Your task to perform on an android device: Open Wikipedia Image 0: 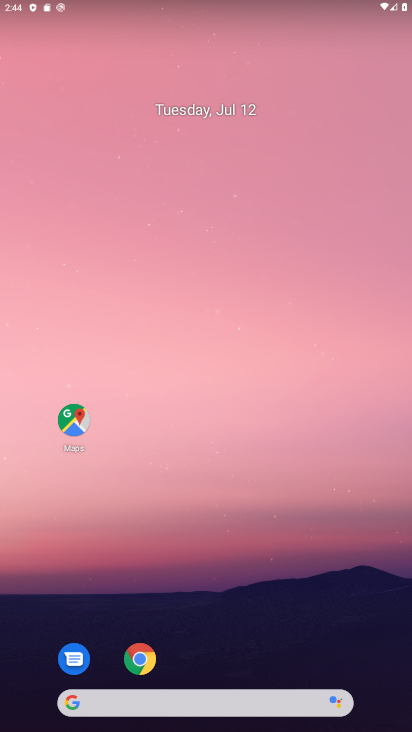
Step 0: click (221, 130)
Your task to perform on an android device: Open Wikipedia Image 1: 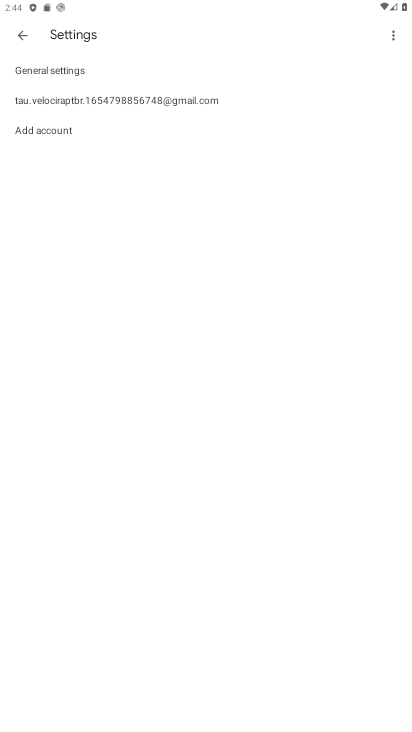
Step 1: click (13, 30)
Your task to perform on an android device: Open Wikipedia Image 2: 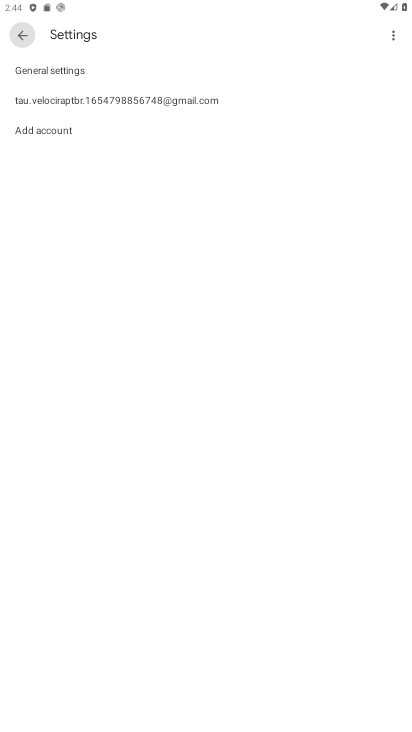
Step 2: click (13, 30)
Your task to perform on an android device: Open Wikipedia Image 3: 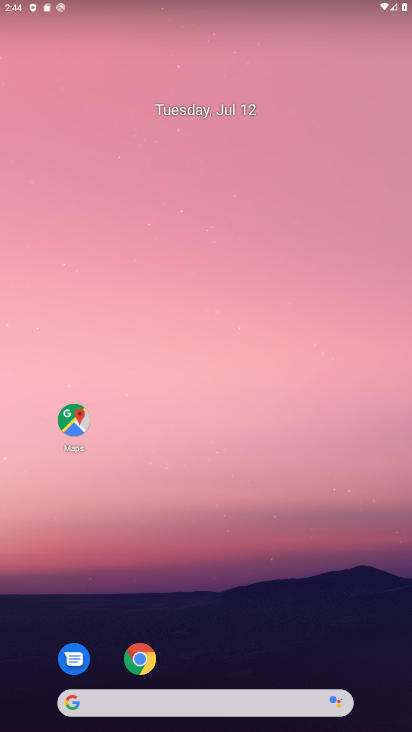
Step 3: drag from (292, 711) to (119, 115)
Your task to perform on an android device: Open Wikipedia Image 4: 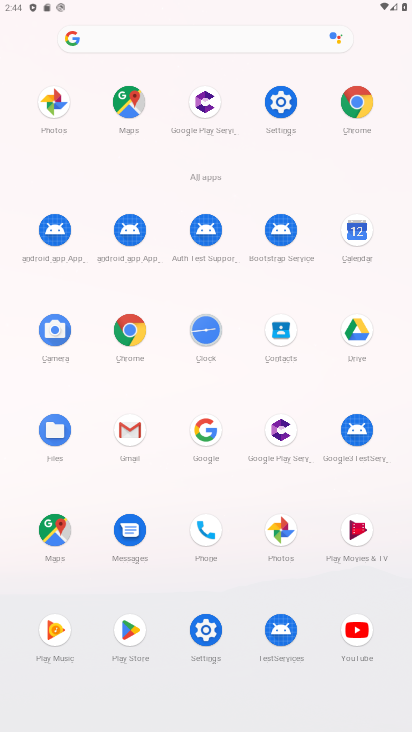
Step 4: click (348, 95)
Your task to perform on an android device: Open Wikipedia Image 5: 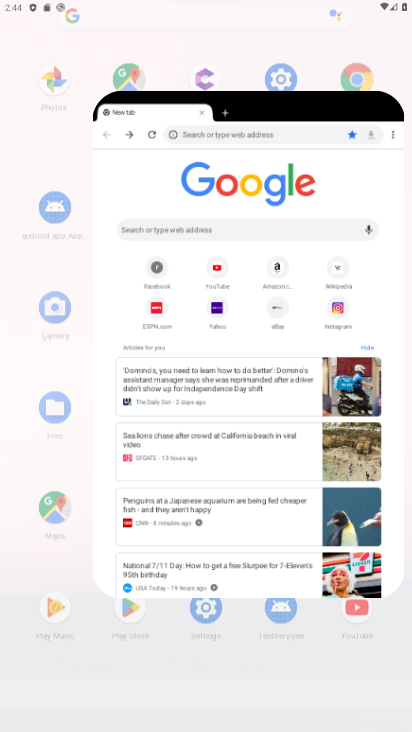
Step 5: click (348, 95)
Your task to perform on an android device: Open Wikipedia Image 6: 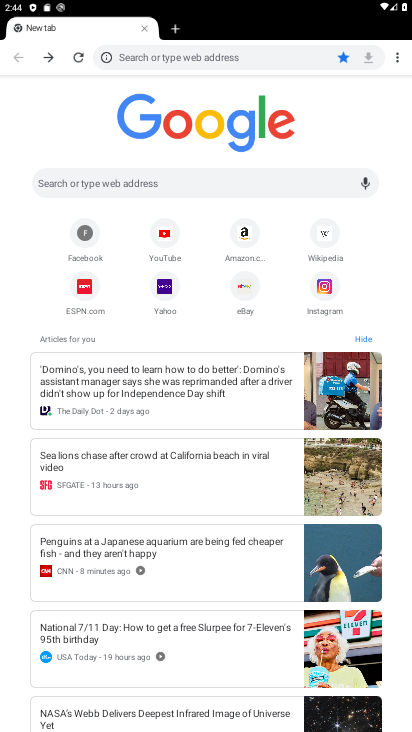
Step 6: click (394, 55)
Your task to perform on an android device: Open Wikipedia Image 7: 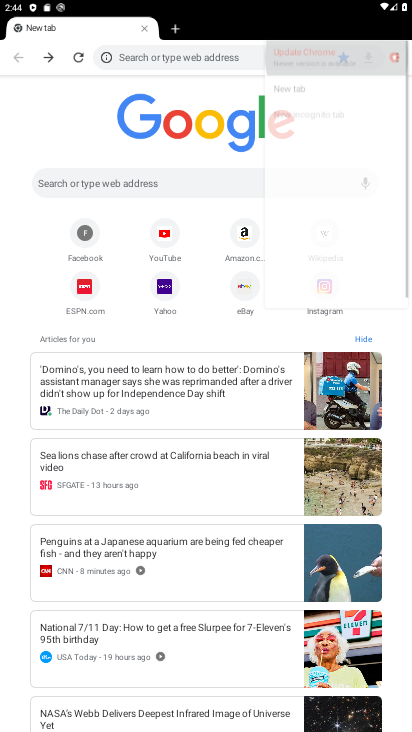
Step 7: click (394, 55)
Your task to perform on an android device: Open Wikipedia Image 8: 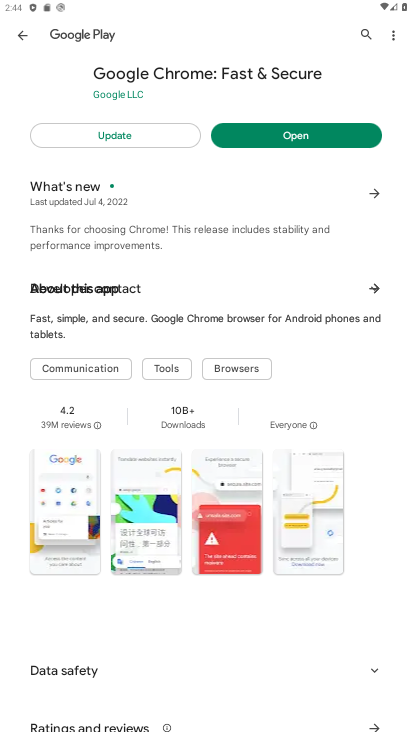
Step 8: press back button
Your task to perform on an android device: Open Wikipedia Image 9: 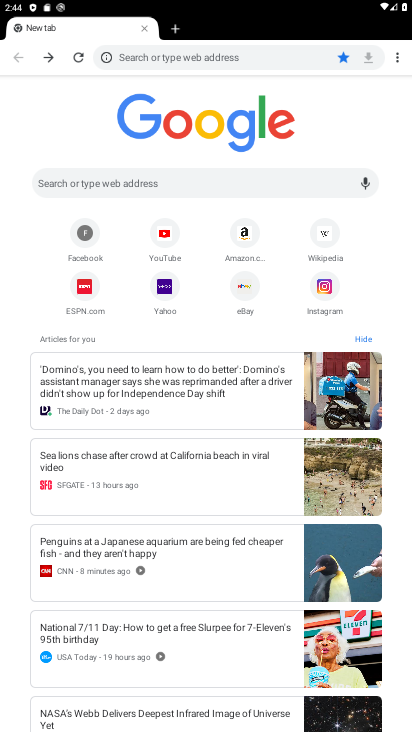
Step 9: click (323, 235)
Your task to perform on an android device: Open Wikipedia Image 10: 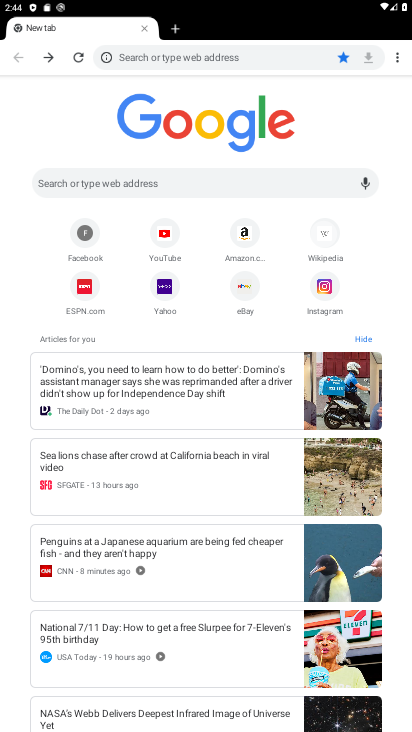
Step 10: click (325, 234)
Your task to perform on an android device: Open Wikipedia Image 11: 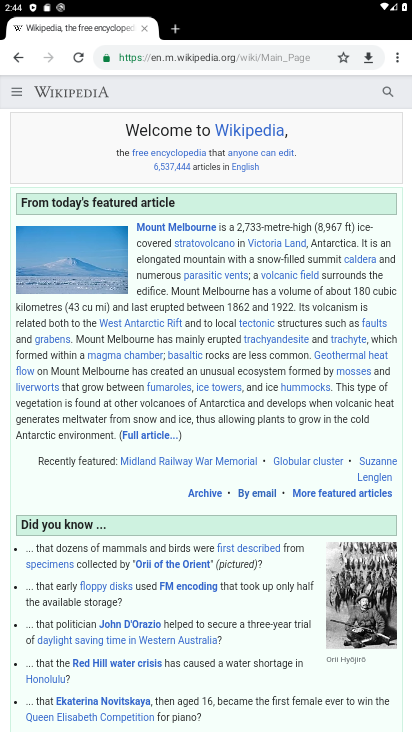
Step 11: task complete